Your task to perform on an android device: toggle javascript in the chrome app Image 0: 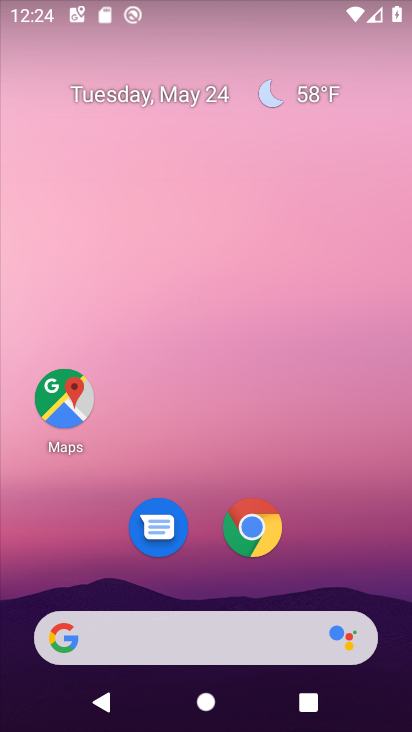
Step 0: click (260, 529)
Your task to perform on an android device: toggle javascript in the chrome app Image 1: 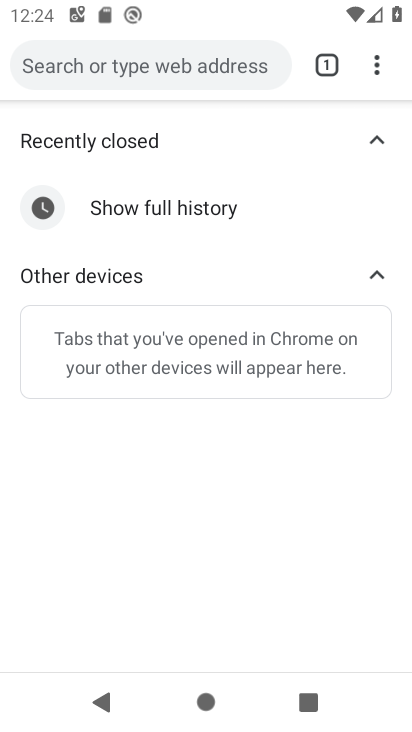
Step 1: click (382, 55)
Your task to perform on an android device: toggle javascript in the chrome app Image 2: 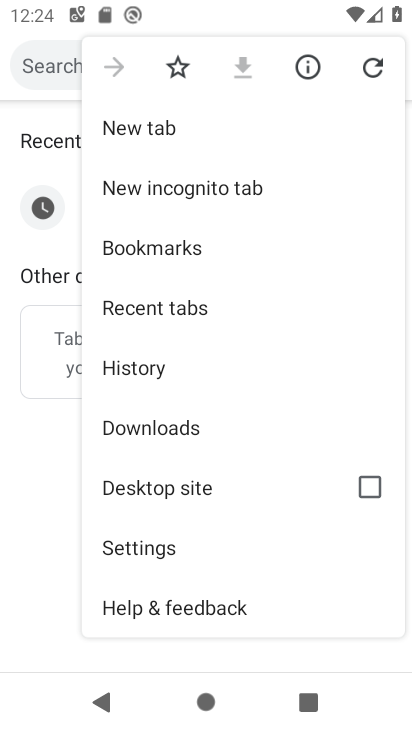
Step 2: click (240, 550)
Your task to perform on an android device: toggle javascript in the chrome app Image 3: 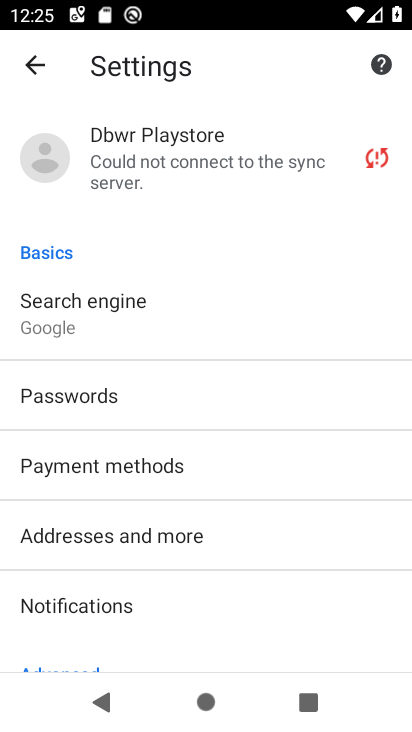
Step 3: drag from (249, 610) to (224, 247)
Your task to perform on an android device: toggle javascript in the chrome app Image 4: 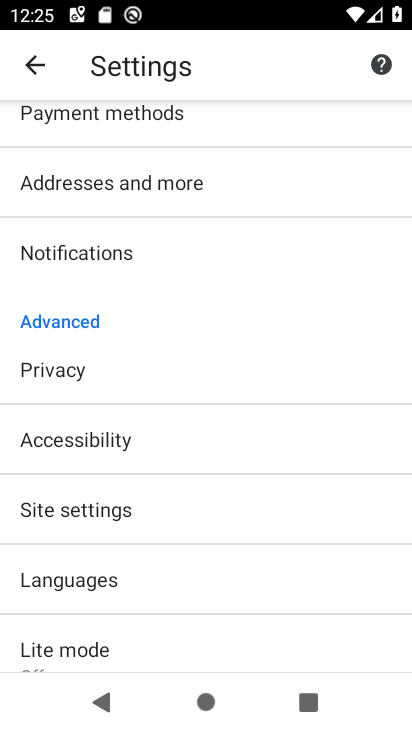
Step 4: click (246, 518)
Your task to perform on an android device: toggle javascript in the chrome app Image 5: 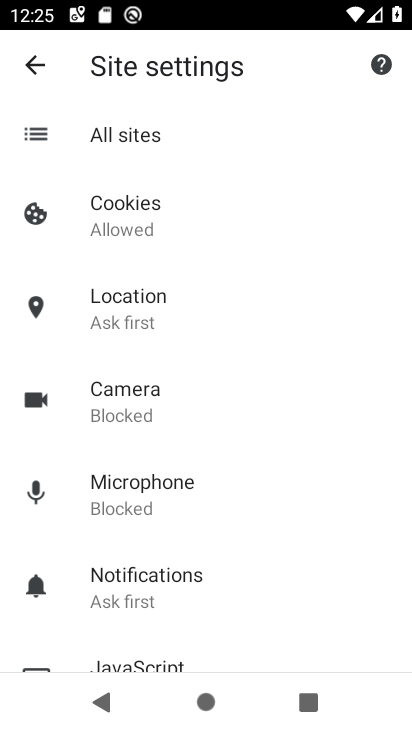
Step 5: drag from (267, 649) to (225, 239)
Your task to perform on an android device: toggle javascript in the chrome app Image 6: 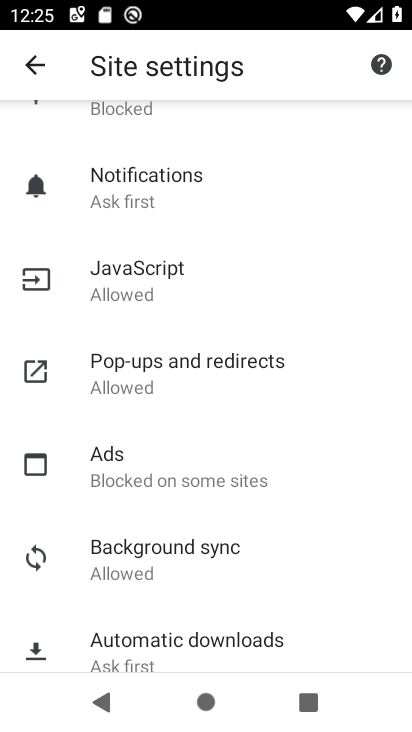
Step 6: click (192, 305)
Your task to perform on an android device: toggle javascript in the chrome app Image 7: 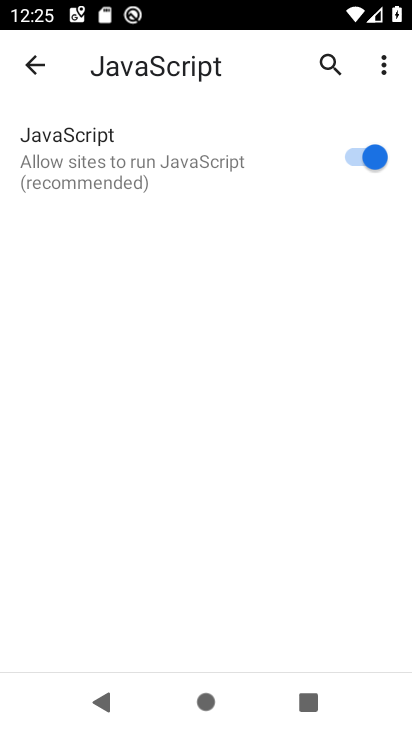
Step 7: click (353, 160)
Your task to perform on an android device: toggle javascript in the chrome app Image 8: 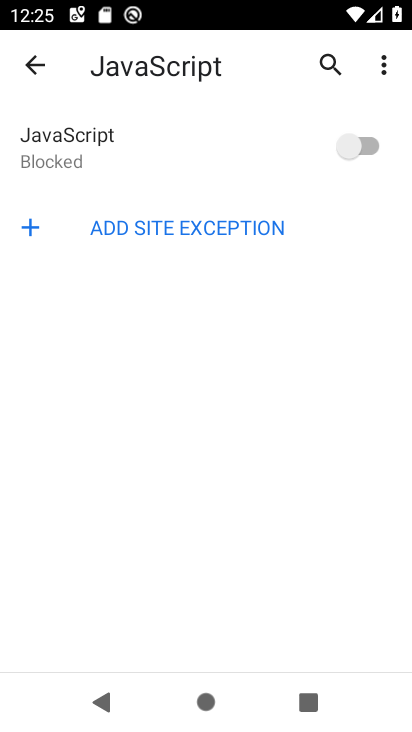
Step 8: task complete